Your task to perform on an android device: Open privacy settings Image 0: 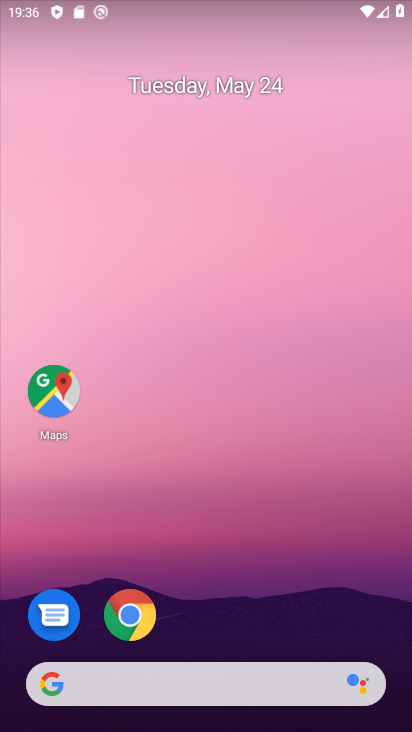
Step 0: drag from (216, 577) to (253, 274)
Your task to perform on an android device: Open privacy settings Image 1: 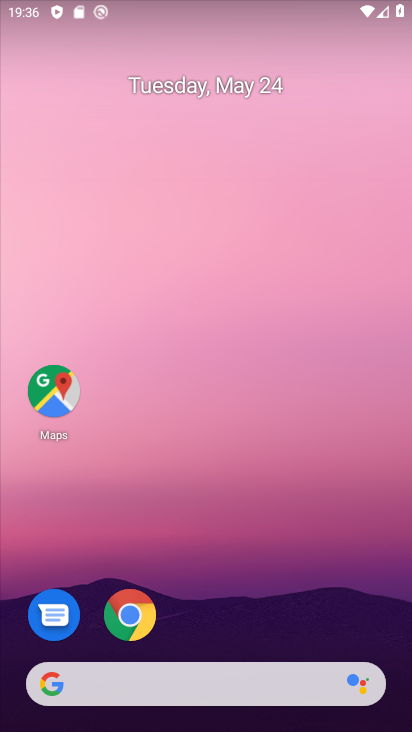
Step 1: drag from (239, 657) to (271, 254)
Your task to perform on an android device: Open privacy settings Image 2: 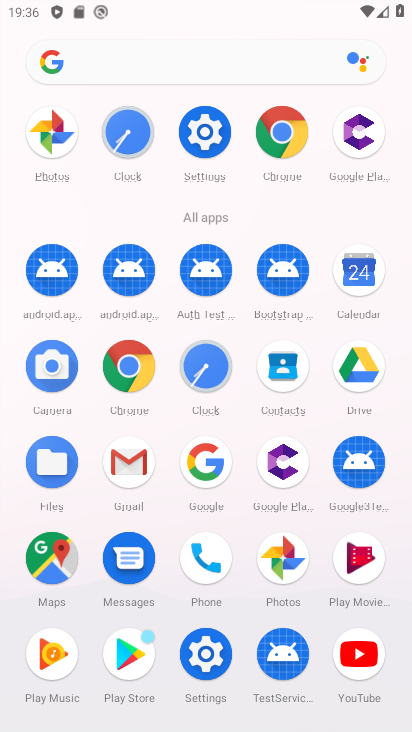
Step 2: click (192, 129)
Your task to perform on an android device: Open privacy settings Image 3: 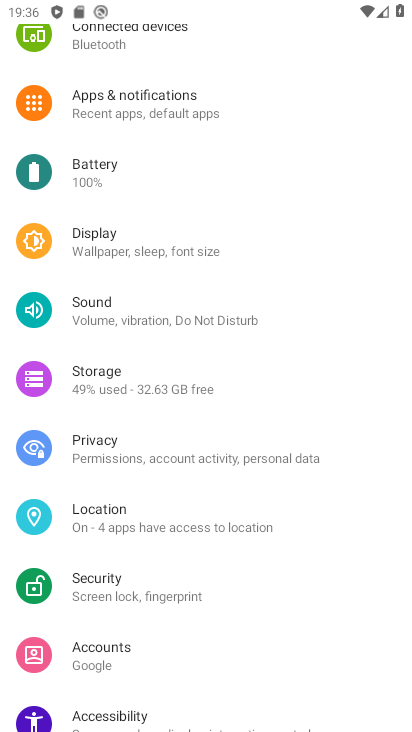
Step 3: click (126, 445)
Your task to perform on an android device: Open privacy settings Image 4: 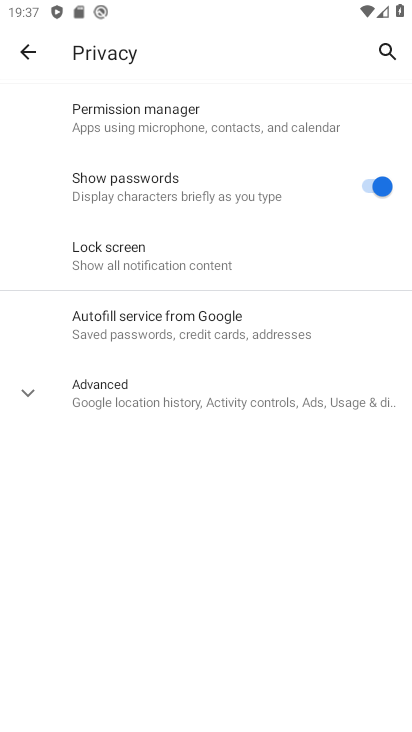
Step 4: task complete